Your task to perform on an android device: open app "DoorDash - Food Delivery" (install if not already installed), go to login, and select forgot password Image 0: 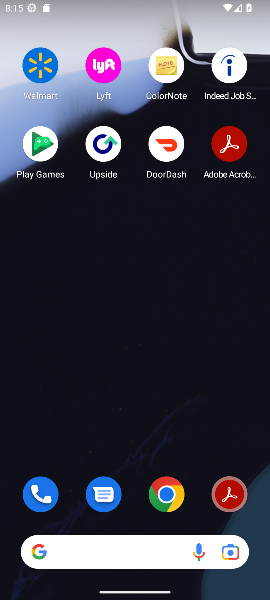
Step 0: drag from (192, 502) to (225, 96)
Your task to perform on an android device: open app "DoorDash - Food Delivery" (install if not already installed), go to login, and select forgot password Image 1: 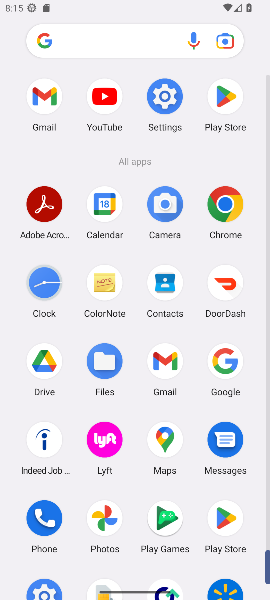
Step 1: click (225, 286)
Your task to perform on an android device: open app "DoorDash - Food Delivery" (install if not already installed), go to login, and select forgot password Image 2: 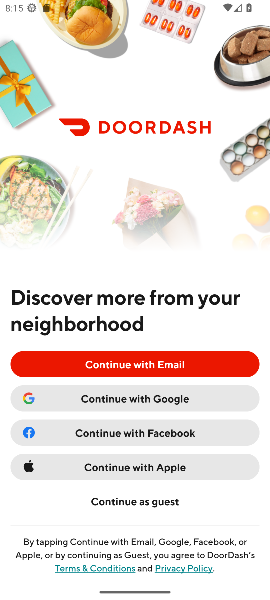
Step 2: click (138, 365)
Your task to perform on an android device: open app "DoorDash - Food Delivery" (install if not already installed), go to login, and select forgot password Image 3: 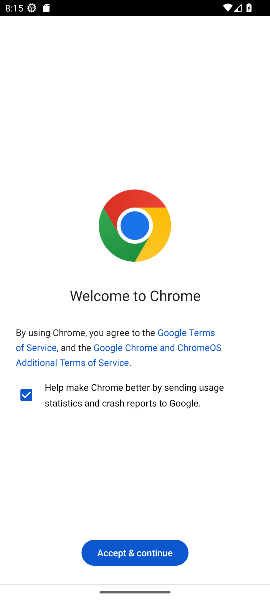
Step 3: click (121, 558)
Your task to perform on an android device: open app "DoorDash - Food Delivery" (install if not already installed), go to login, and select forgot password Image 4: 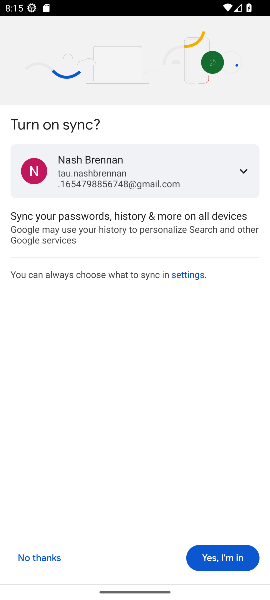
Step 4: click (221, 555)
Your task to perform on an android device: open app "DoorDash - Food Delivery" (install if not already installed), go to login, and select forgot password Image 5: 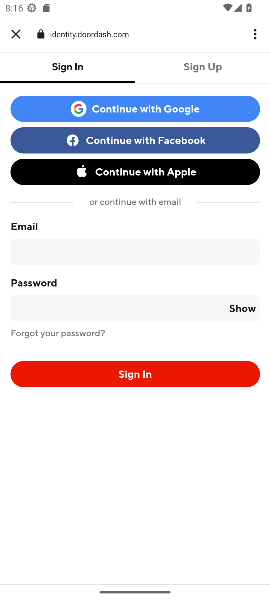
Step 5: click (50, 332)
Your task to perform on an android device: open app "DoorDash - Food Delivery" (install if not already installed), go to login, and select forgot password Image 6: 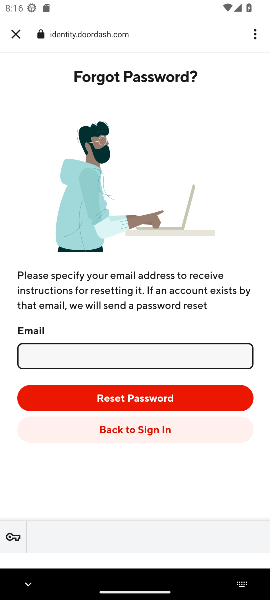
Step 6: task complete